Your task to perform on an android device: stop showing notifications on the lock screen Image 0: 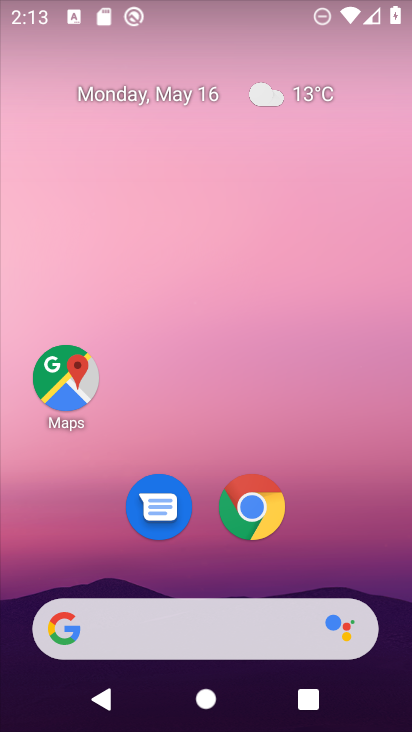
Step 0: drag from (191, 574) to (288, 175)
Your task to perform on an android device: stop showing notifications on the lock screen Image 1: 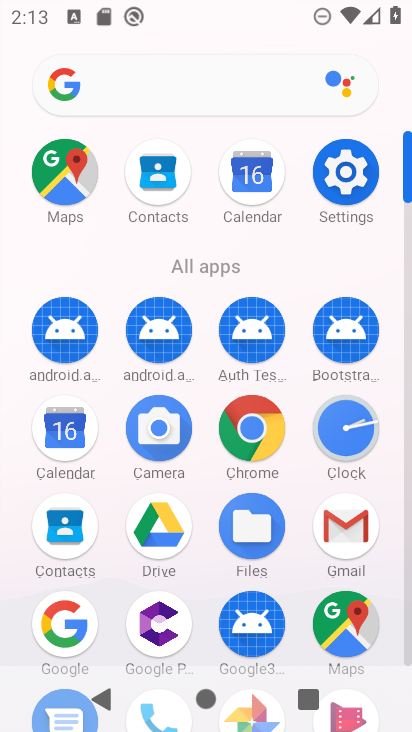
Step 1: click (351, 183)
Your task to perform on an android device: stop showing notifications on the lock screen Image 2: 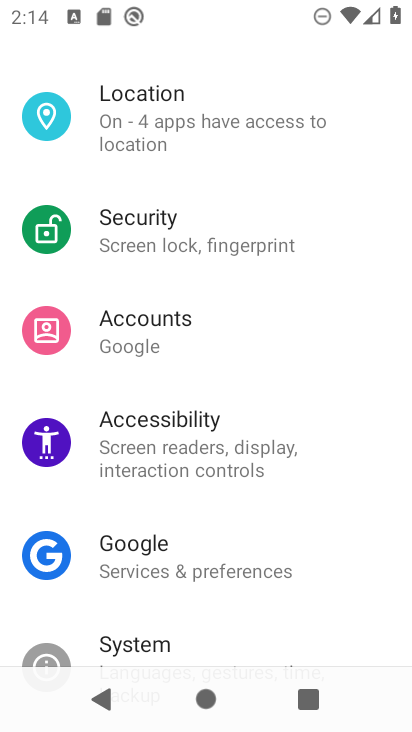
Step 2: click (200, 154)
Your task to perform on an android device: stop showing notifications on the lock screen Image 3: 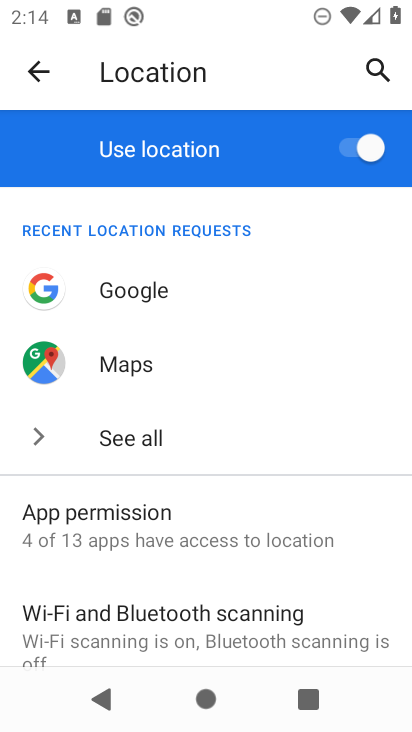
Step 3: drag from (175, 593) to (215, 217)
Your task to perform on an android device: stop showing notifications on the lock screen Image 4: 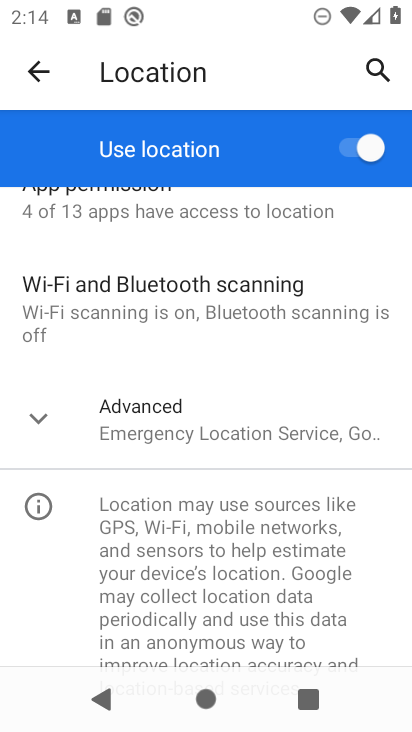
Step 4: drag from (202, 351) to (166, 731)
Your task to perform on an android device: stop showing notifications on the lock screen Image 5: 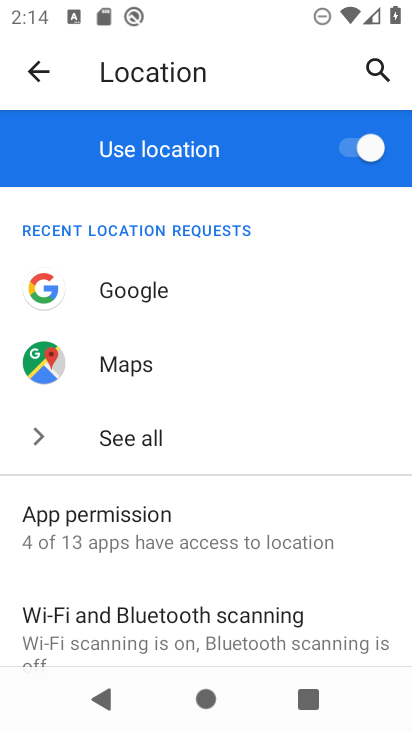
Step 5: press back button
Your task to perform on an android device: stop showing notifications on the lock screen Image 6: 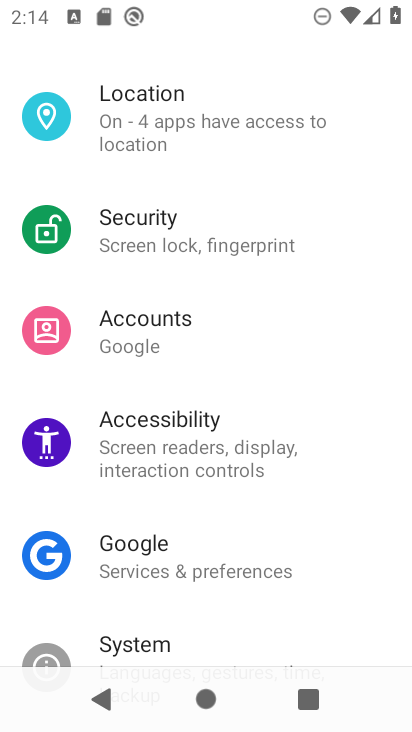
Step 6: drag from (244, 199) to (277, 648)
Your task to perform on an android device: stop showing notifications on the lock screen Image 7: 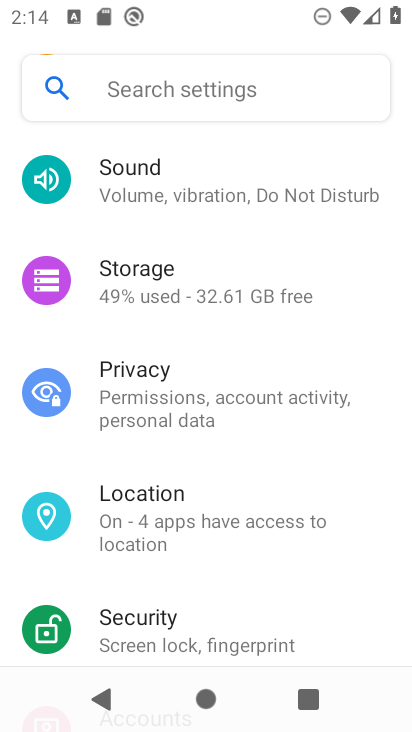
Step 7: drag from (244, 307) to (259, 662)
Your task to perform on an android device: stop showing notifications on the lock screen Image 8: 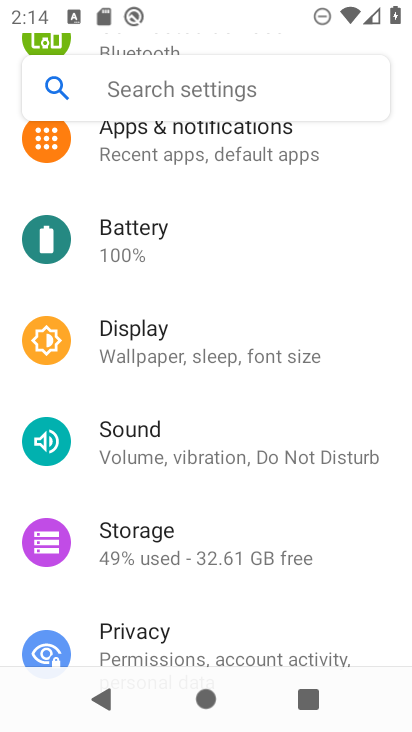
Step 8: click (215, 147)
Your task to perform on an android device: stop showing notifications on the lock screen Image 9: 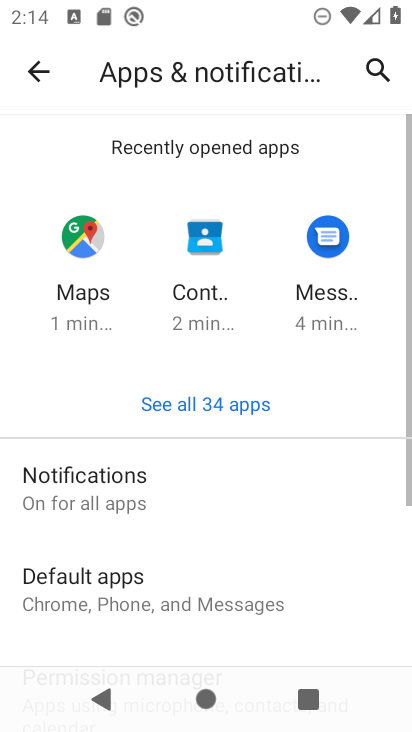
Step 9: drag from (185, 527) to (175, 235)
Your task to perform on an android device: stop showing notifications on the lock screen Image 10: 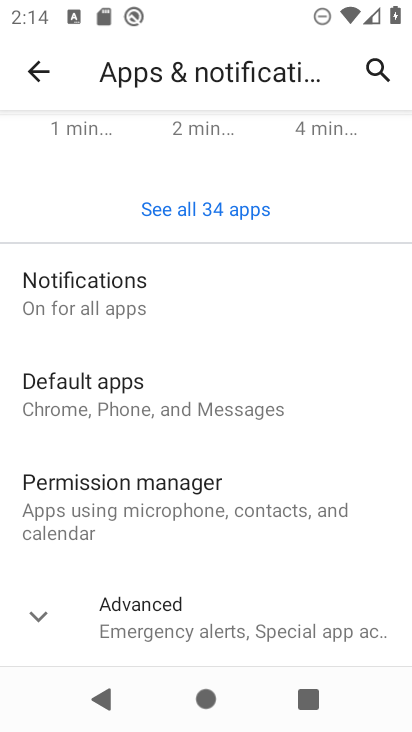
Step 10: click (126, 317)
Your task to perform on an android device: stop showing notifications on the lock screen Image 11: 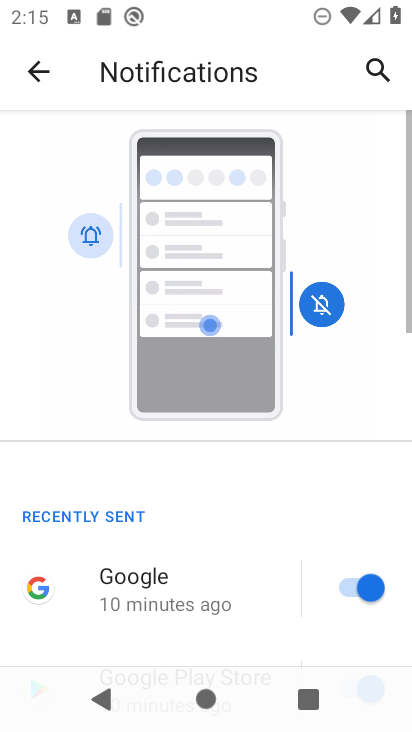
Step 11: drag from (192, 580) to (188, 152)
Your task to perform on an android device: stop showing notifications on the lock screen Image 12: 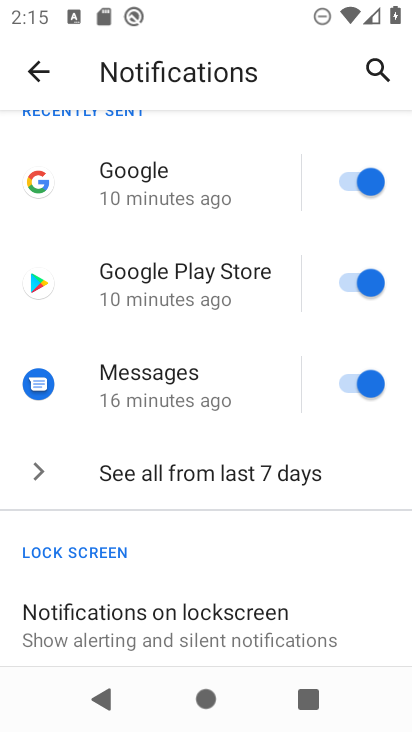
Step 12: drag from (190, 621) to (198, 268)
Your task to perform on an android device: stop showing notifications on the lock screen Image 13: 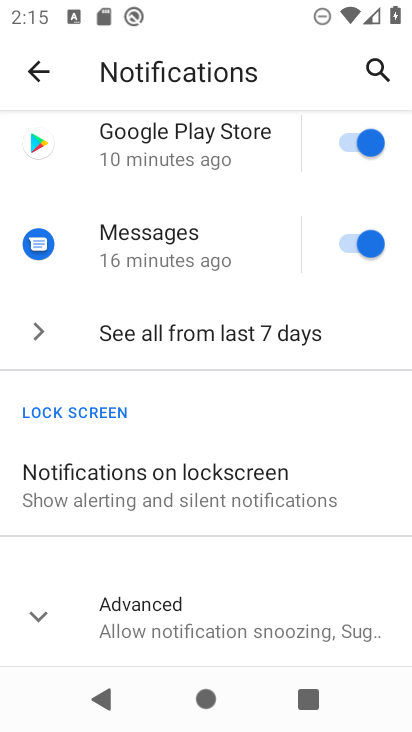
Step 13: drag from (182, 668) to (171, 407)
Your task to perform on an android device: stop showing notifications on the lock screen Image 14: 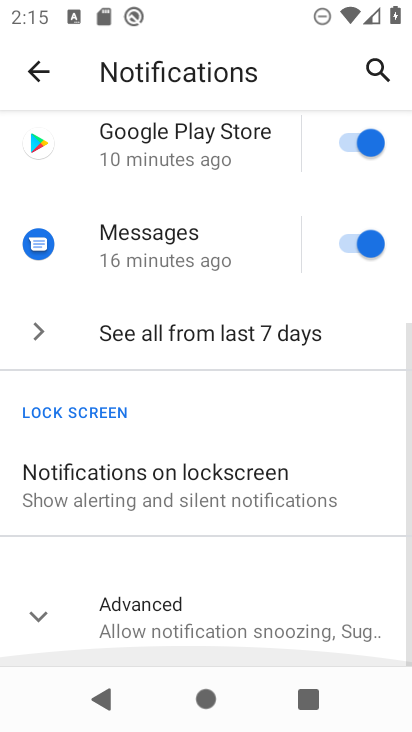
Step 14: click (171, 500)
Your task to perform on an android device: stop showing notifications on the lock screen Image 15: 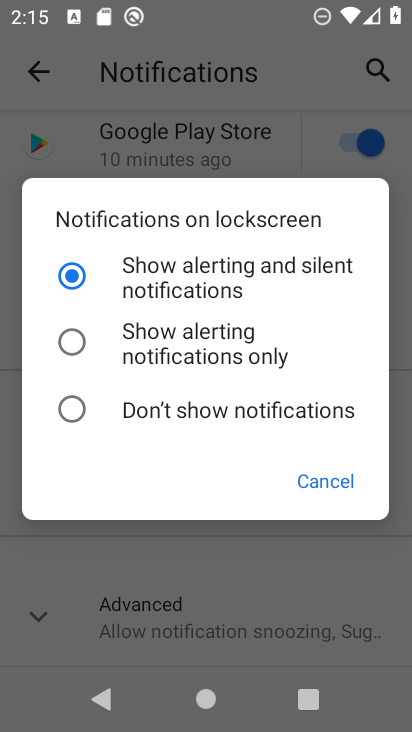
Step 15: click (212, 406)
Your task to perform on an android device: stop showing notifications on the lock screen Image 16: 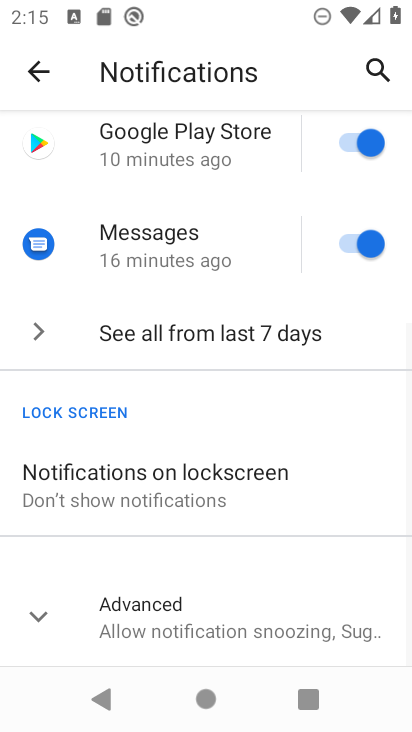
Step 16: task complete